Your task to perform on an android device: Search for Mexican restaurants on Maps Image 0: 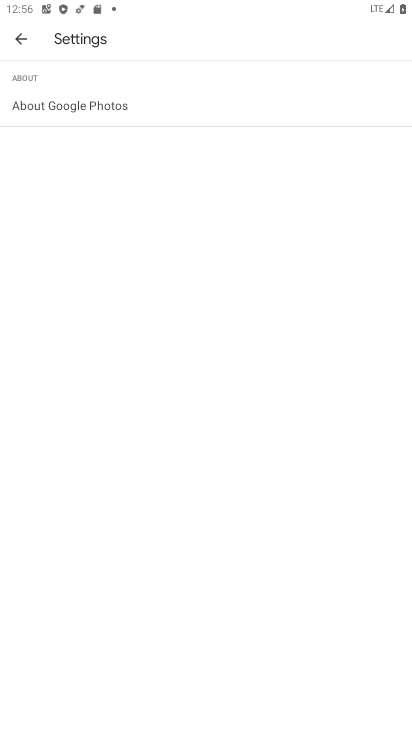
Step 0: press home button
Your task to perform on an android device: Search for Mexican restaurants on Maps Image 1: 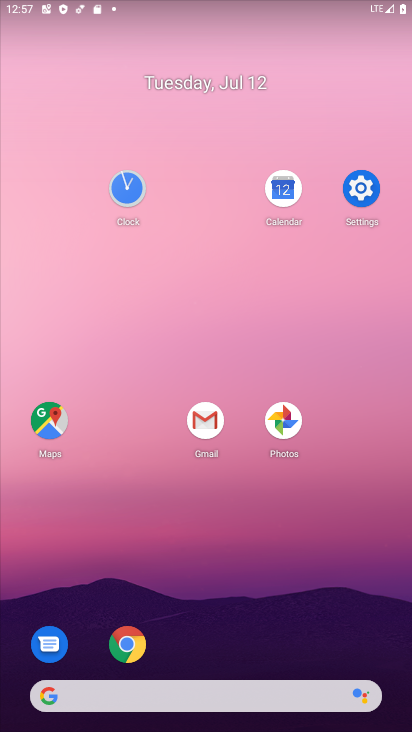
Step 1: click (49, 412)
Your task to perform on an android device: Search for Mexican restaurants on Maps Image 2: 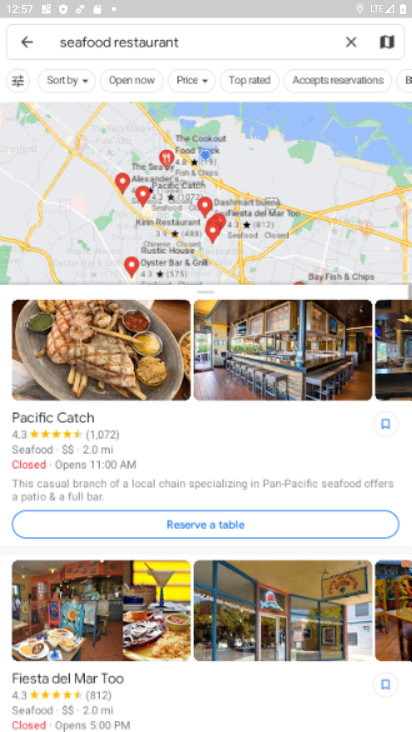
Step 2: click (248, 38)
Your task to perform on an android device: Search for Mexican restaurants on Maps Image 3: 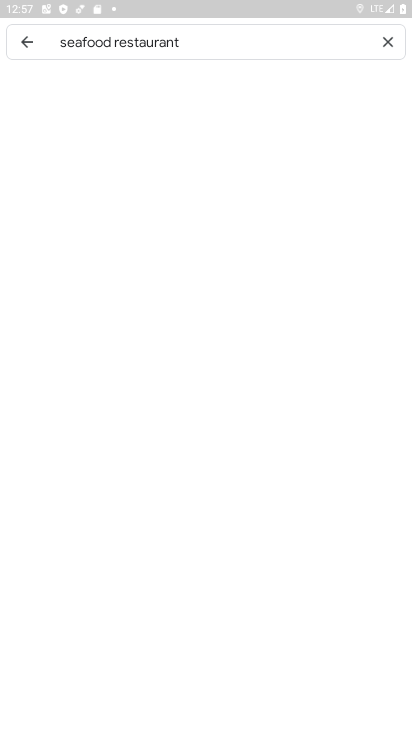
Step 3: click (356, 38)
Your task to perform on an android device: Search for Mexican restaurants on Maps Image 4: 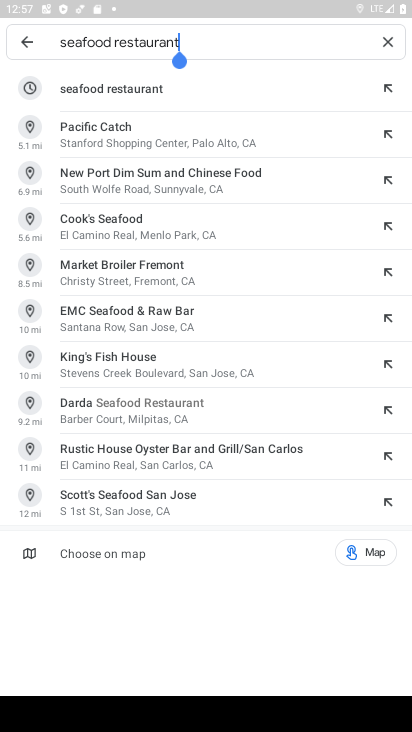
Step 4: click (392, 48)
Your task to perform on an android device: Search for Mexican restaurants on Maps Image 5: 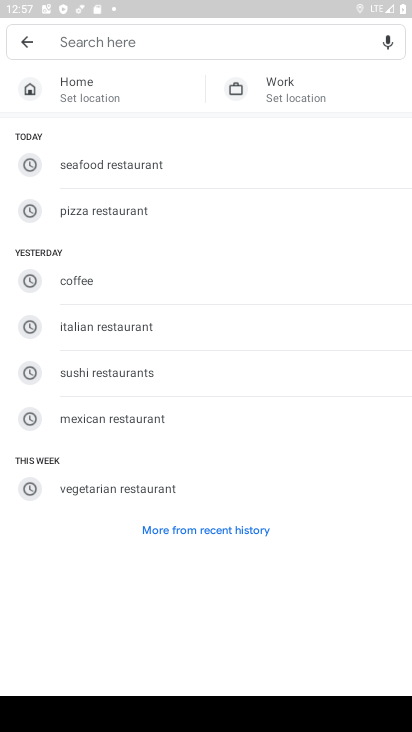
Step 5: click (143, 430)
Your task to perform on an android device: Search for Mexican restaurants on Maps Image 6: 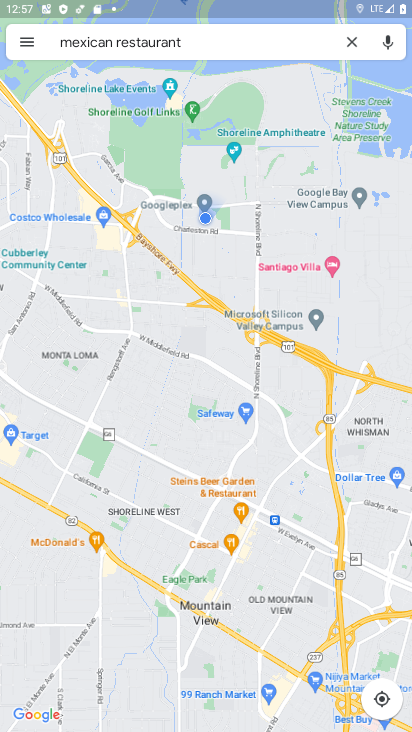
Step 6: task complete